Your task to perform on an android device: What's the weather today? Image 0: 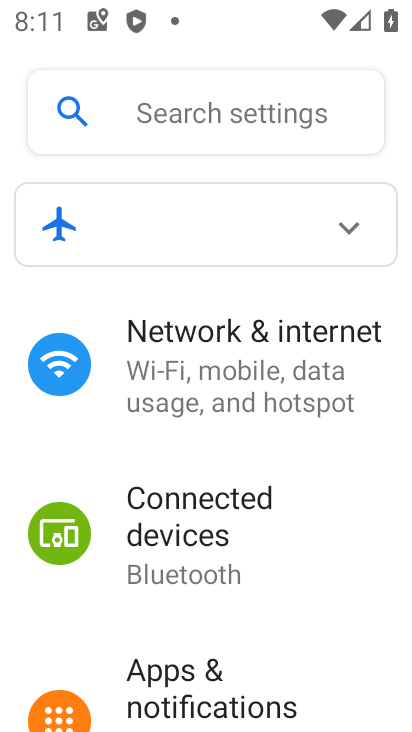
Step 0: press home button
Your task to perform on an android device: What's the weather today? Image 1: 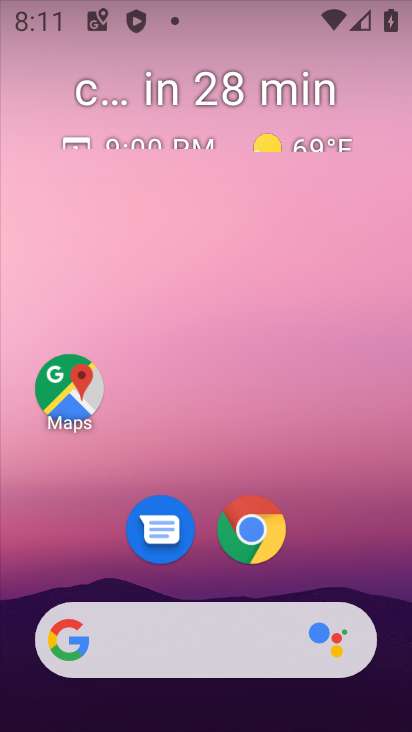
Step 1: click (237, 631)
Your task to perform on an android device: What's the weather today? Image 2: 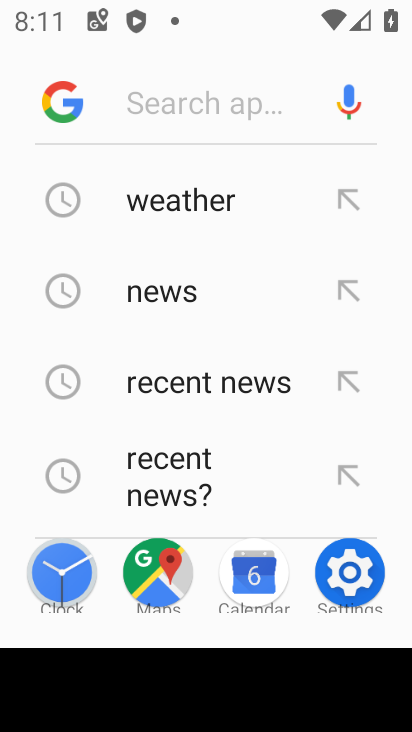
Step 2: click (214, 194)
Your task to perform on an android device: What's the weather today? Image 3: 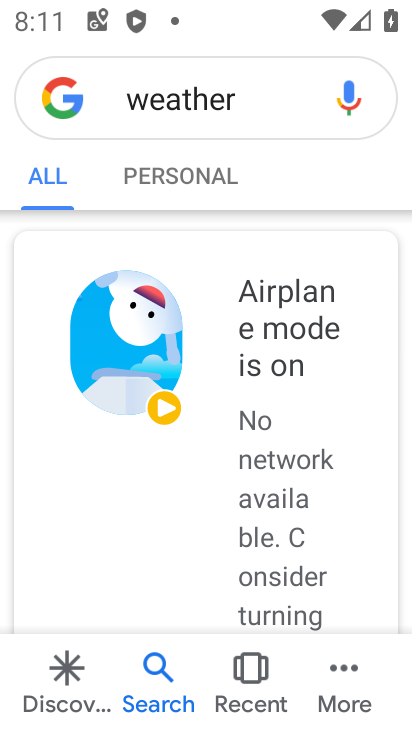
Step 3: drag from (273, 10) to (239, 526)
Your task to perform on an android device: What's the weather today? Image 4: 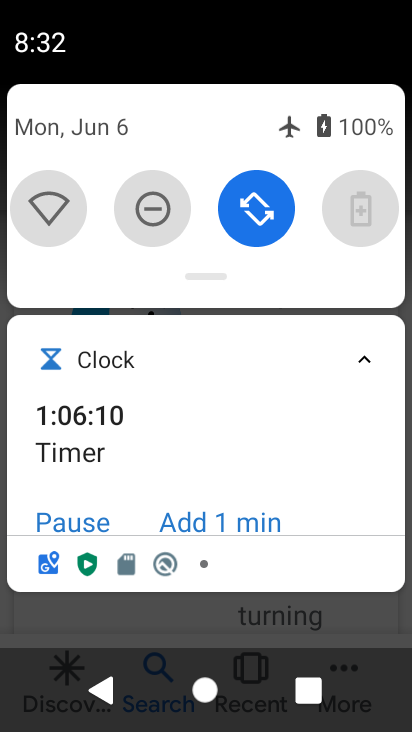
Step 4: drag from (348, 207) to (64, 183)
Your task to perform on an android device: What's the weather today? Image 5: 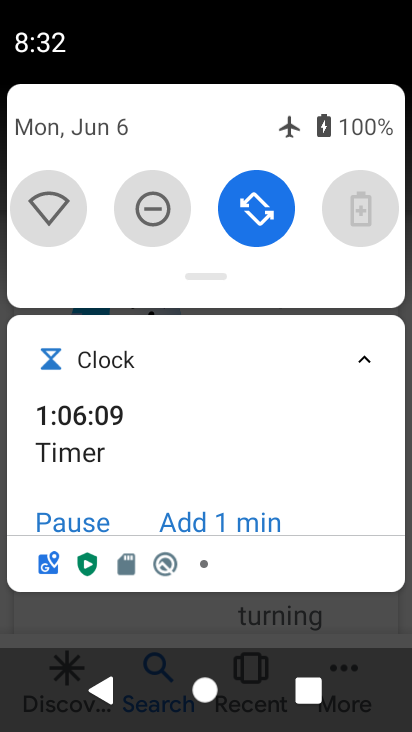
Step 5: drag from (195, 264) to (156, 674)
Your task to perform on an android device: What's the weather today? Image 6: 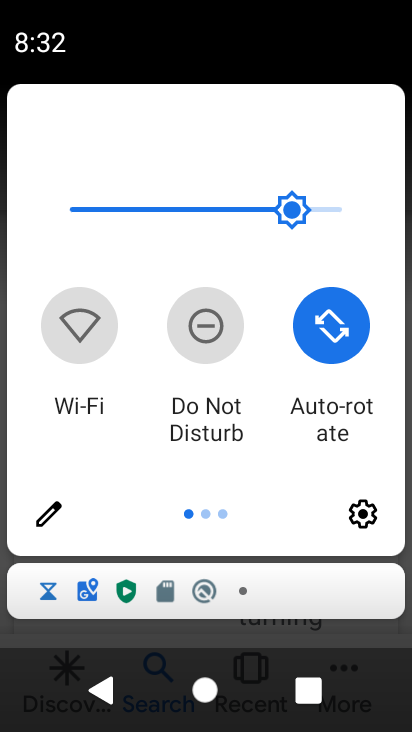
Step 6: drag from (362, 423) to (52, 435)
Your task to perform on an android device: What's the weather today? Image 7: 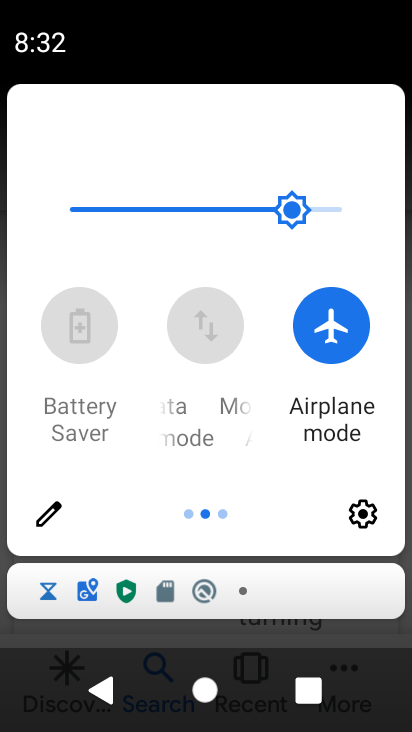
Step 7: click (336, 333)
Your task to perform on an android device: What's the weather today? Image 8: 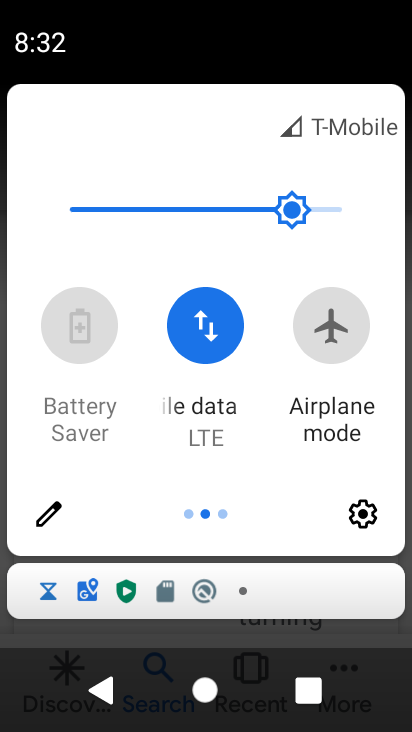
Step 8: task complete